Your task to perform on an android device: turn pop-ups on in chrome Image 0: 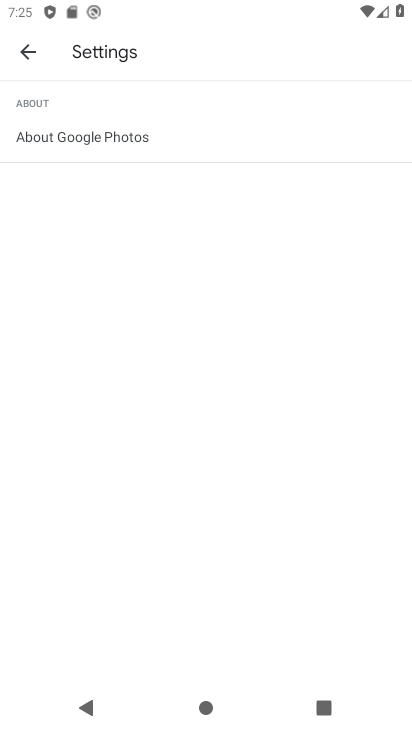
Step 0: press home button
Your task to perform on an android device: turn pop-ups on in chrome Image 1: 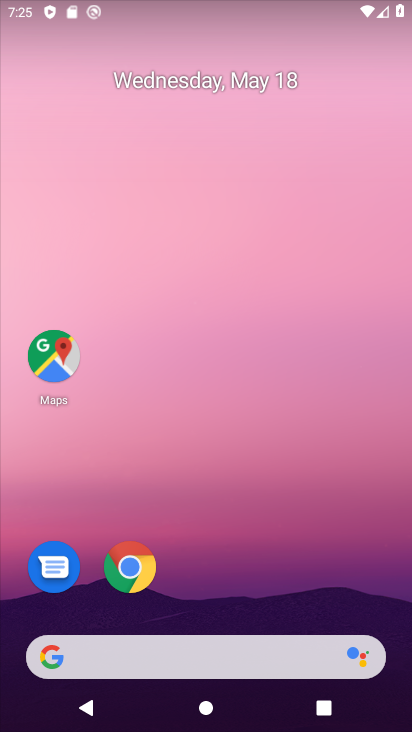
Step 1: click (127, 569)
Your task to perform on an android device: turn pop-ups on in chrome Image 2: 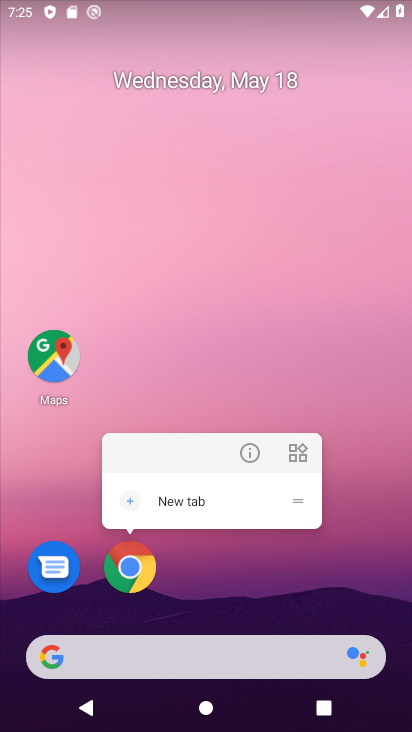
Step 2: click (120, 596)
Your task to perform on an android device: turn pop-ups on in chrome Image 3: 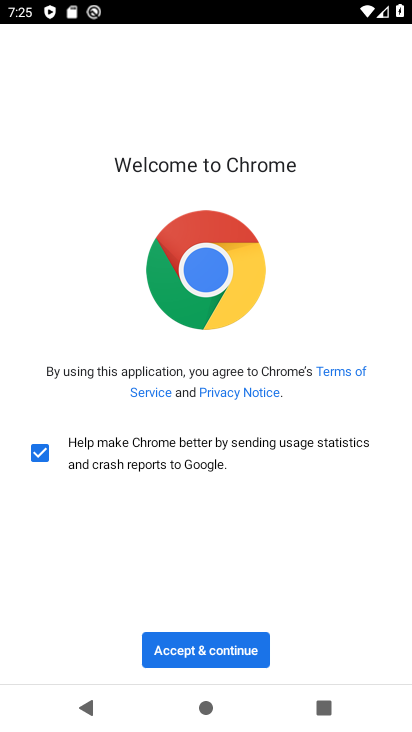
Step 3: click (241, 642)
Your task to perform on an android device: turn pop-ups on in chrome Image 4: 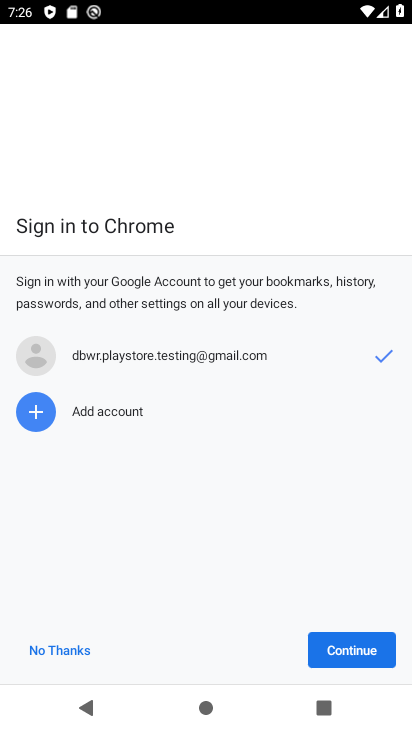
Step 4: click (327, 639)
Your task to perform on an android device: turn pop-ups on in chrome Image 5: 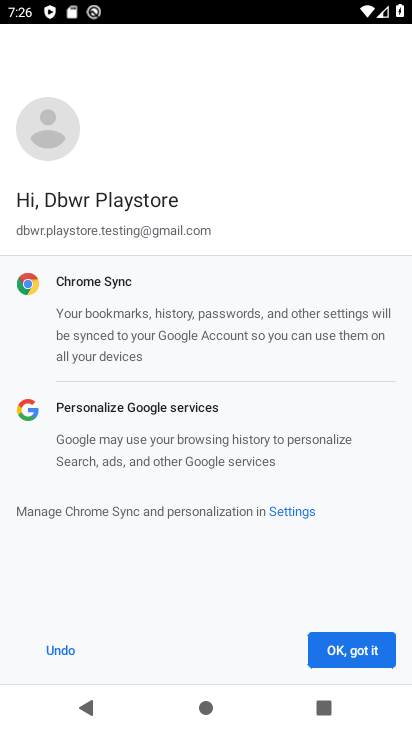
Step 5: click (327, 639)
Your task to perform on an android device: turn pop-ups on in chrome Image 6: 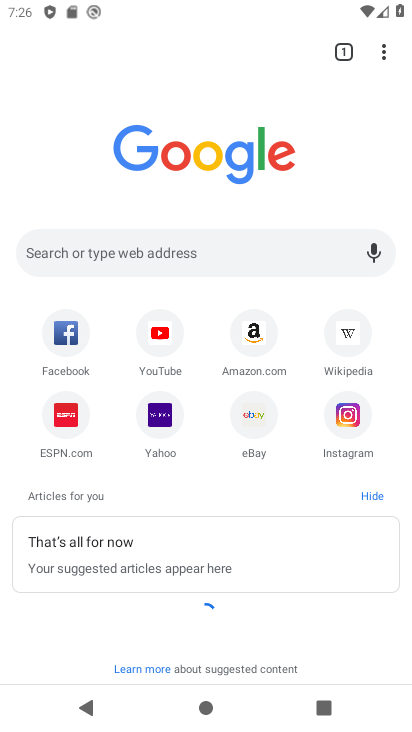
Step 6: click (382, 63)
Your task to perform on an android device: turn pop-ups on in chrome Image 7: 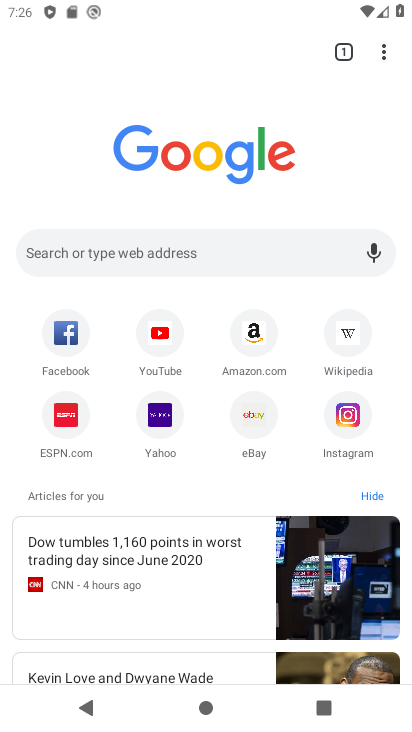
Step 7: click (381, 49)
Your task to perform on an android device: turn pop-ups on in chrome Image 8: 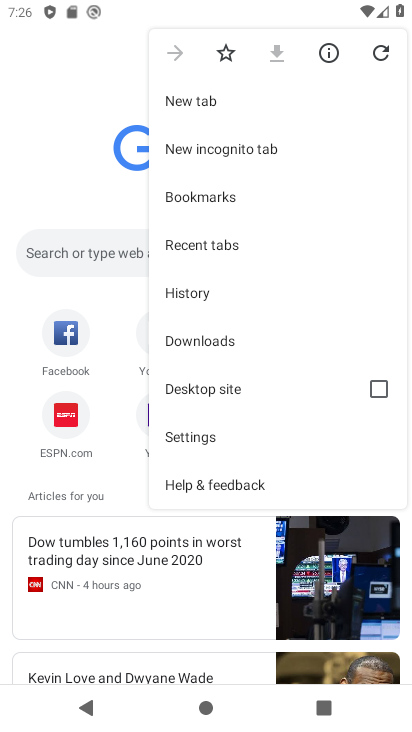
Step 8: click (231, 436)
Your task to perform on an android device: turn pop-ups on in chrome Image 9: 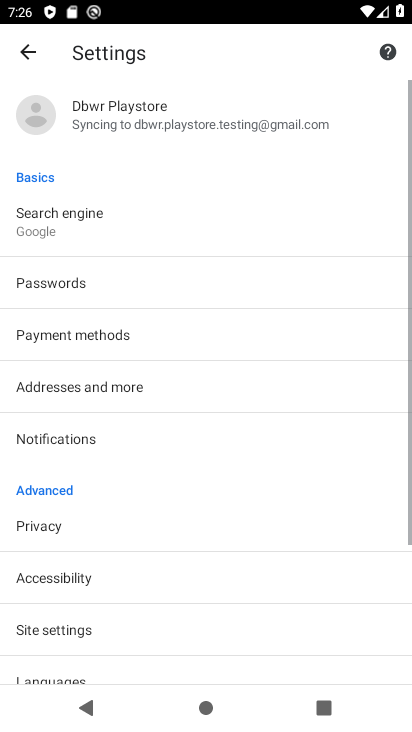
Step 9: drag from (184, 638) to (213, 239)
Your task to perform on an android device: turn pop-ups on in chrome Image 10: 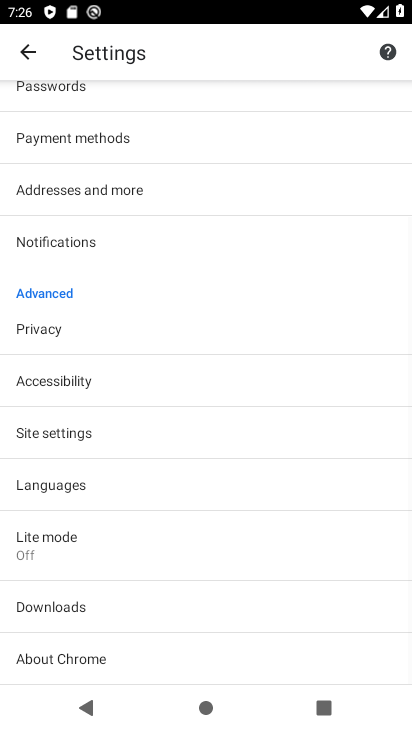
Step 10: click (85, 436)
Your task to perform on an android device: turn pop-ups on in chrome Image 11: 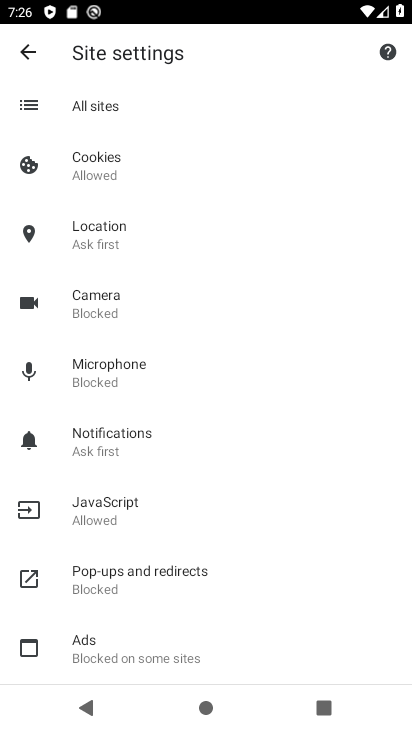
Step 11: click (168, 565)
Your task to perform on an android device: turn pop-ups on in chrome Image 12: 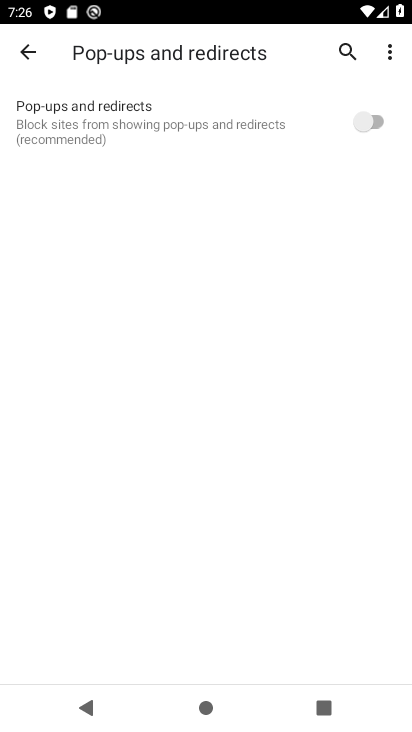
Step 12: click (368, 120)
Your task to perform on an android device: turn pop-ups on in chrome Image 13: 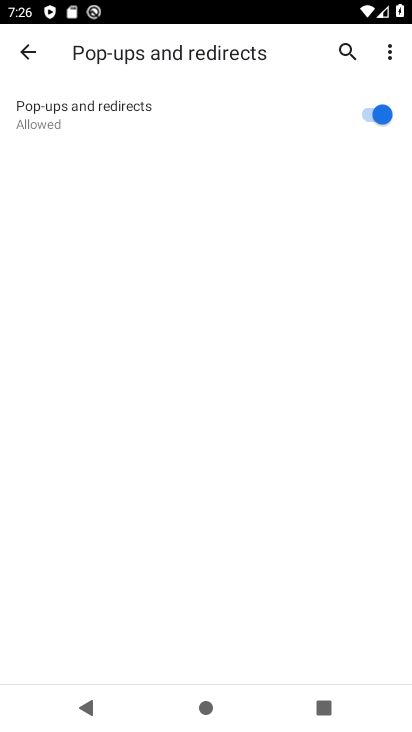
Step 13: task complete